Your task to perform on an android device: add a contact Image 0: 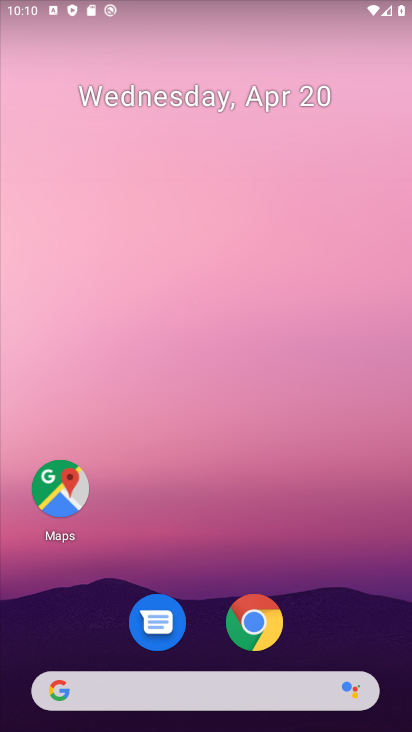
Step 0: drag from (349, 400) to (384, 45)
Your task to perform on an android device: add a contact Image 1: 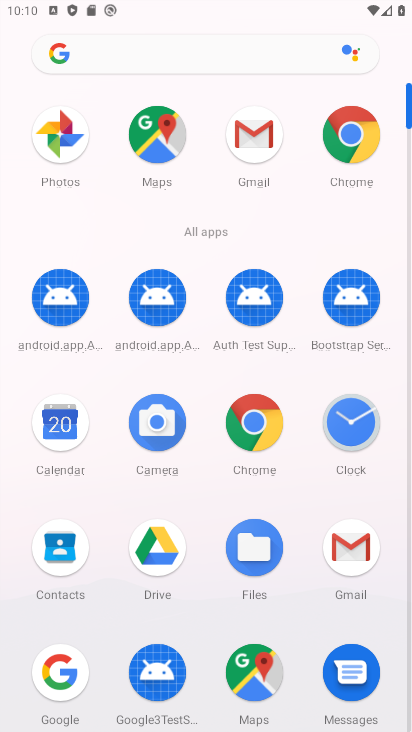
Step 1: click (61, 568)
Your task to perform on an android device: add a contact Image 2: 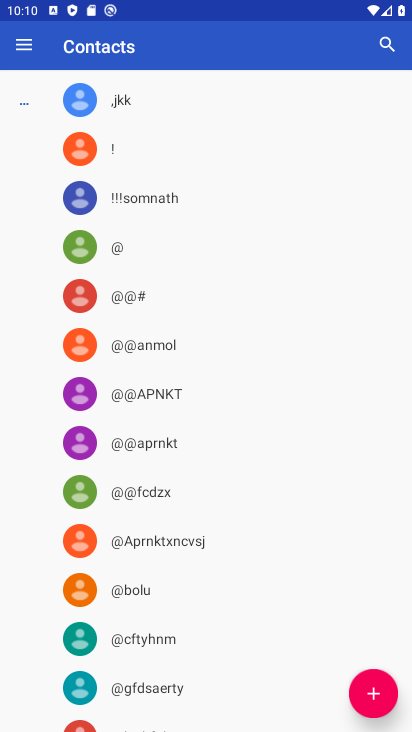
Step 2: click (384, 699)
Your task to perform on an android device: add a contact Image 3: 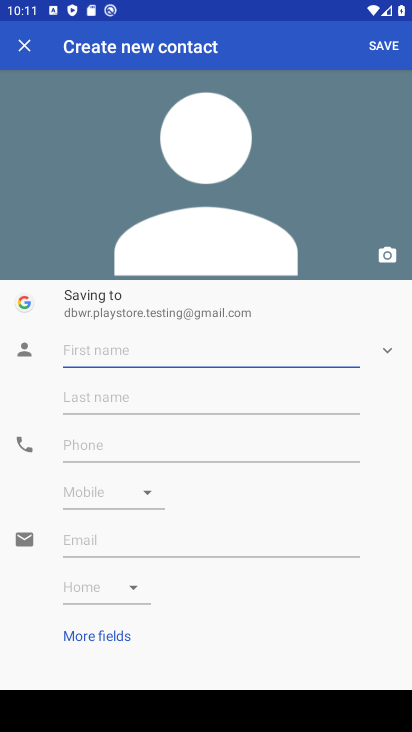
Step 3: type "meena"
Your task to perform on an android device: add a contact Image 4: 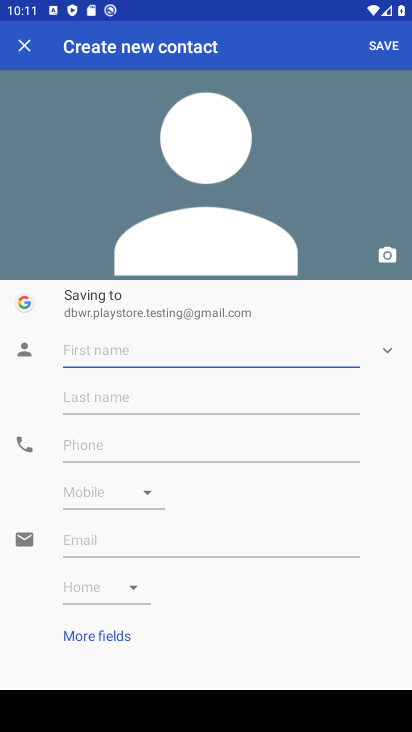
Step 4: click (122, 443)
Your task to perform on an android device: add a contact Image 5: 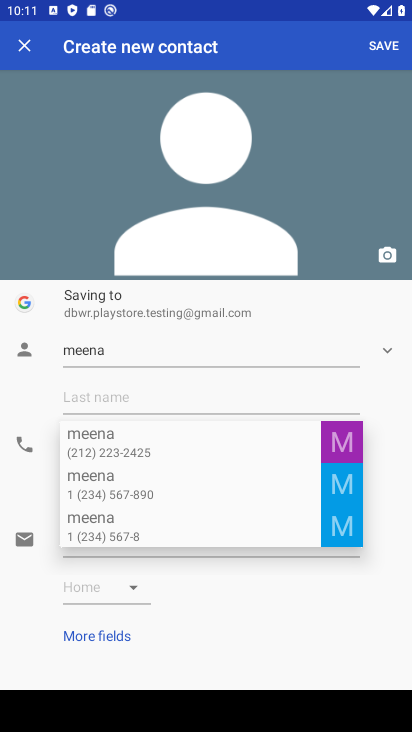
Step 5: type "8765456789"
Your task to perform on an android device: add a contact Image 6: 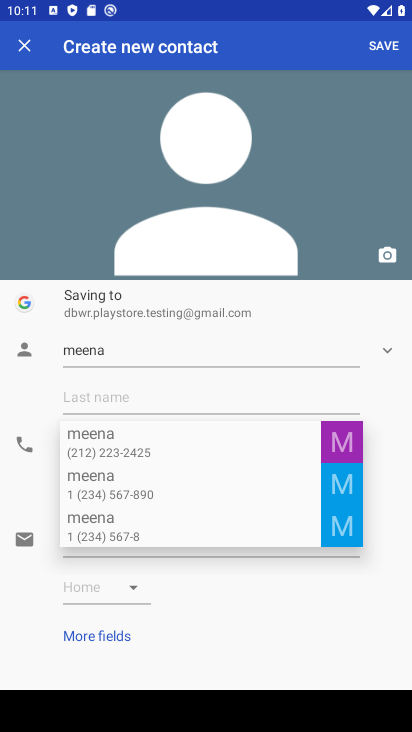
Step 6: click (372, 452)
Your task to perform on an android device: add a contact Image 7: 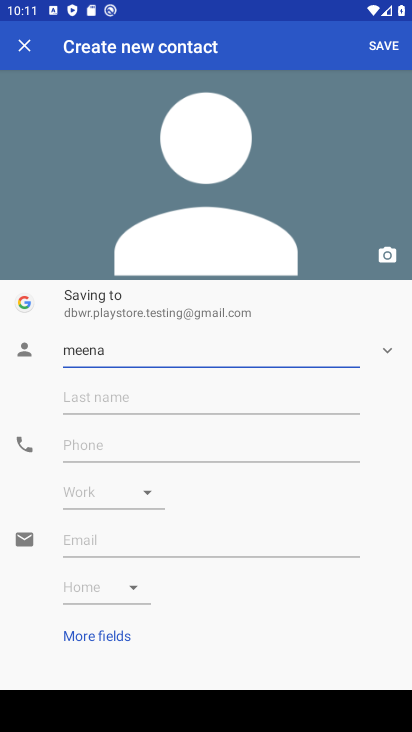
Step 7: click (99, 429)
Your task to perform on an android device: add a contact Image 8: 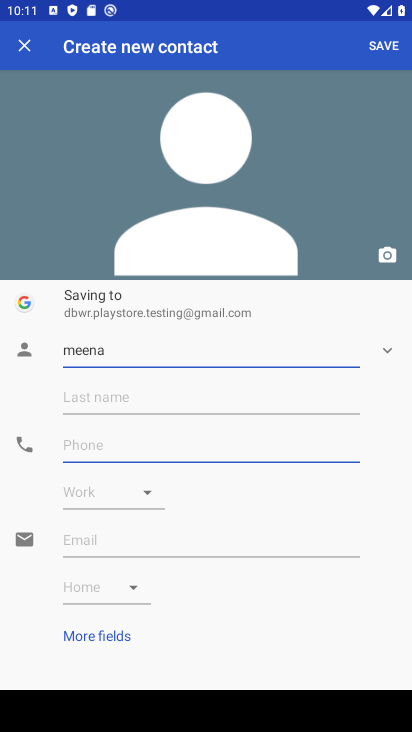
Step 8: click (101, 443)
Your task to perform on an android device: add a contact Image 9: 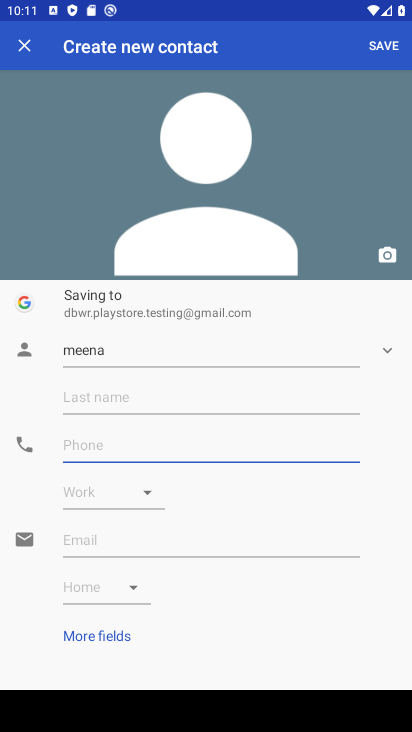
Step 9: type "67887655678"
Your task to perform on an android device: add a contact Image 10: 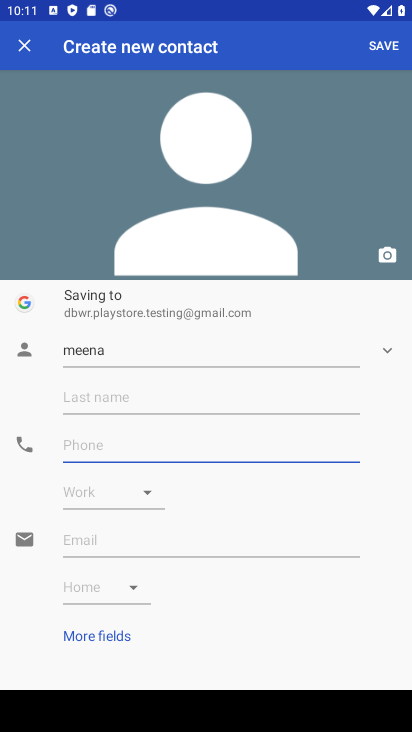
Step 10: click (249, 497)
Your task to perform on an android device: add a contact Image 11: 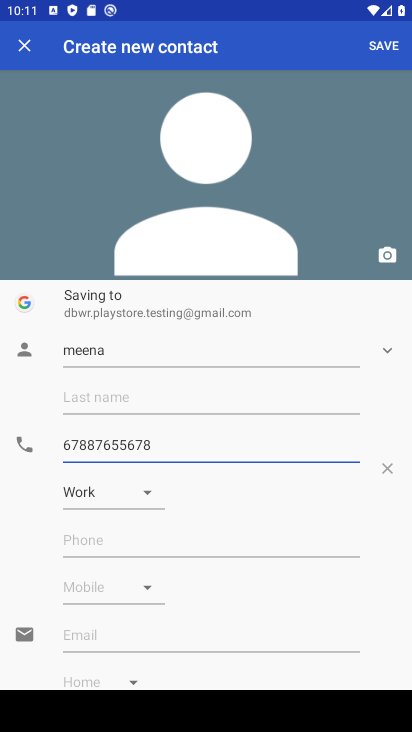
Step 11: click (389, 47)
Your task to perform on an android device: add a contact Image 12: 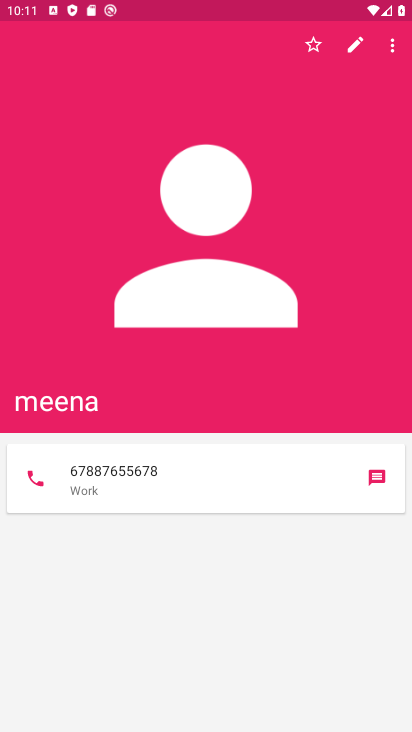
Step 12: task complete